Your task to perform on an android device: Open notification settings Image 0: 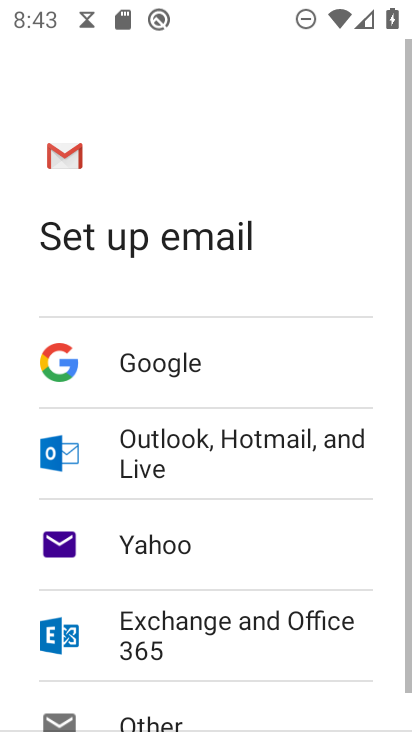
Step 0: press back button
Your task to perform on an android device: Open notification settings Image 1: 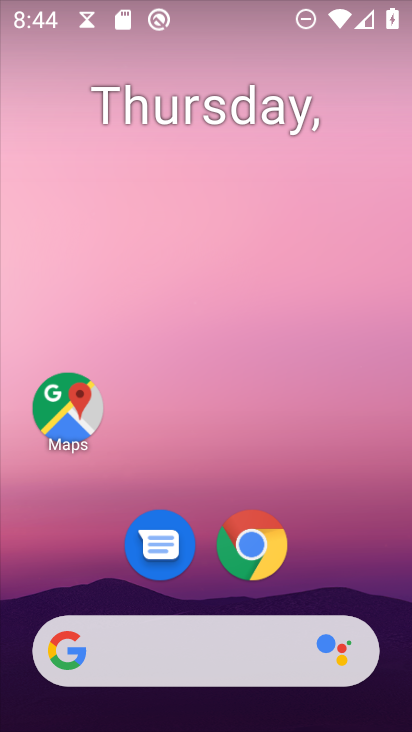
Step 1: drag from (323, 501) to (227, 0)
Your task to perform on an android device: Open notification settings Image 2: 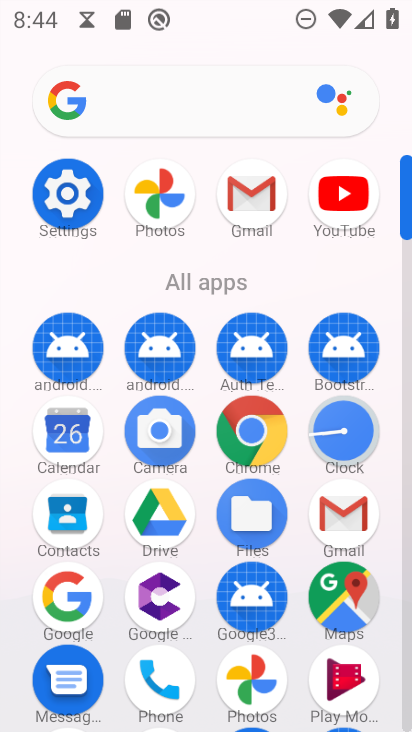
Step 2: click (70, 194)
Your task to perform on an android device: Open notification settings Image 3: 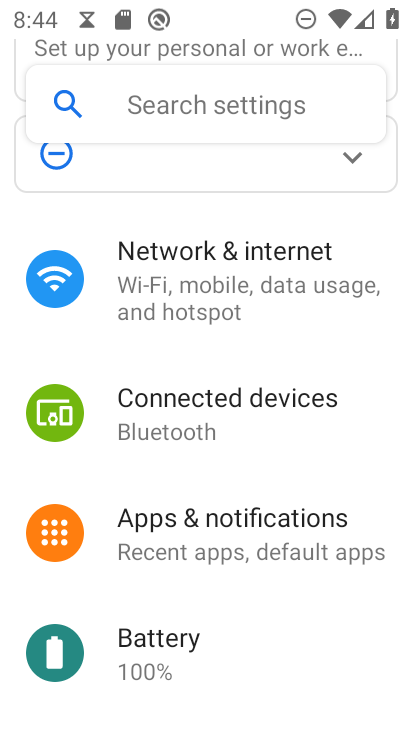
Step 3: drag from (192, 461) to (208, 341)
Your task to perform on an android device: Open notification settings Image 4: 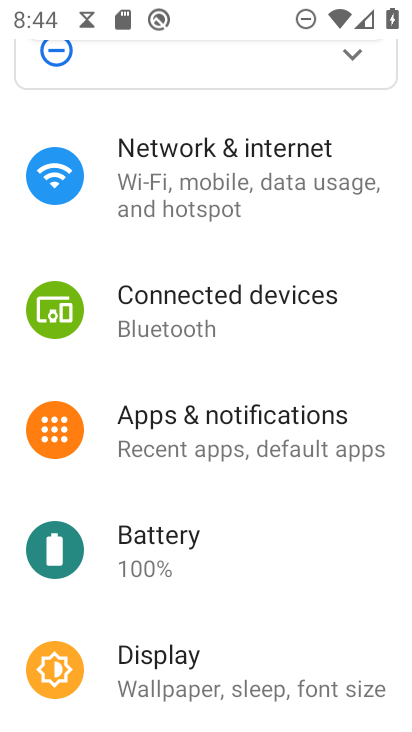
Step 4: click (246, 421)
Your task to perform on an android device: Open notification settings Image 5: 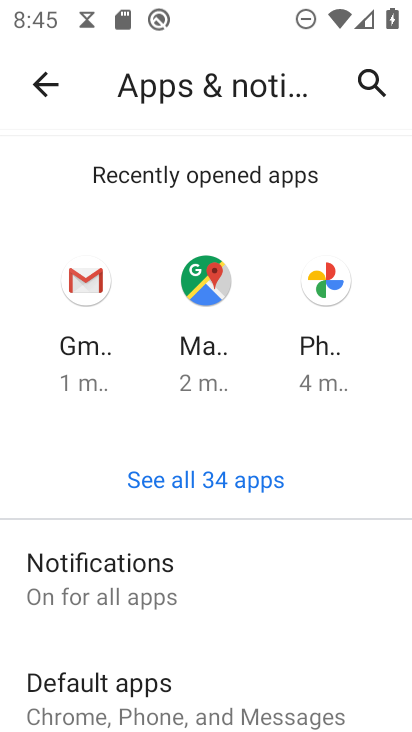
Step 5: task complete